Your task to perform on an android device: Open the phone app and click the voicemail tab. Image 0: 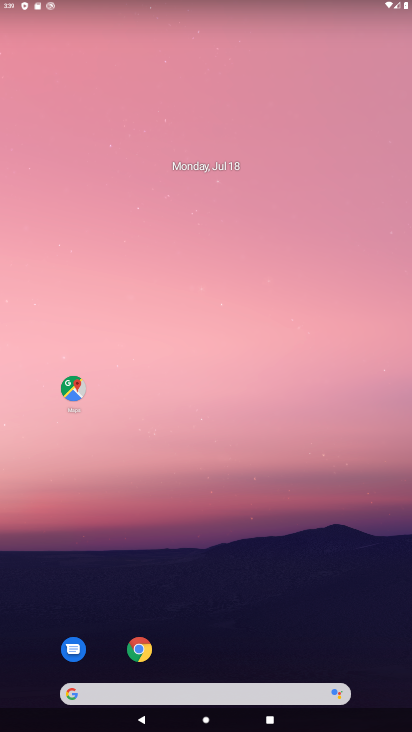
Step 0: drag from (312, 637) to (205, 188)
Your task to perform on an android device: Open the phone app and click the voicemail tab. Image 1: 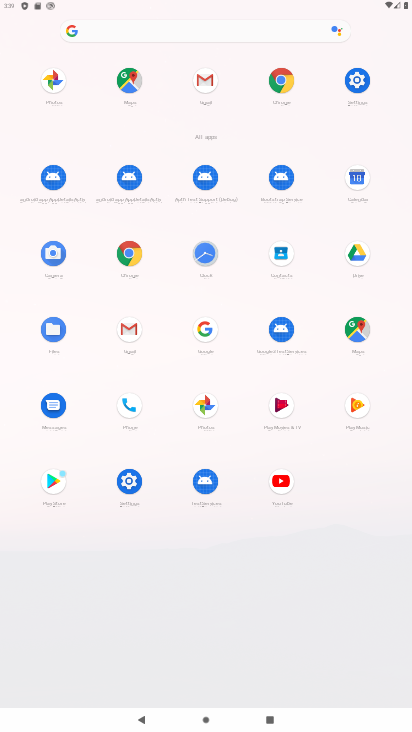
Step 1: click (125, 403)
Your task to perform on an android device: Open the phone app and click the voicemail tab. Image 2: 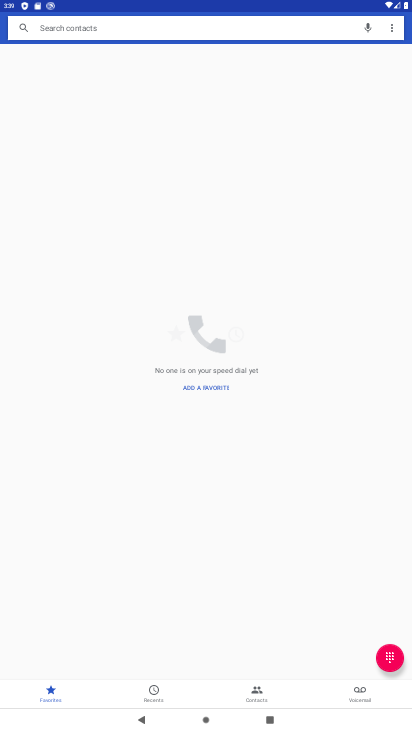
Step 2: click (360, 698)
Your task to perform on an android device: Open the phone app and click the voicemail tab. Image 3: 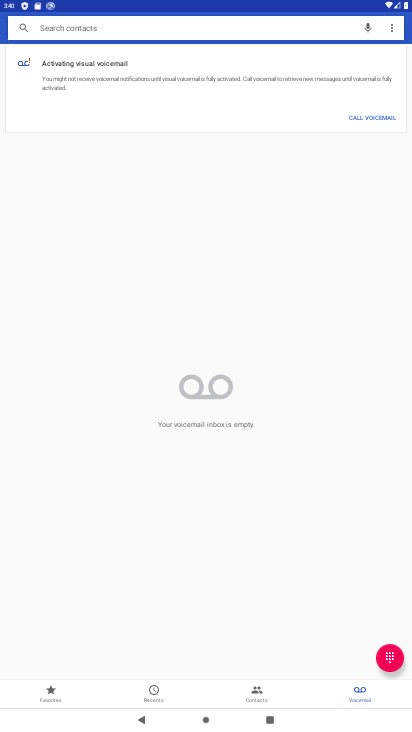
Step 3: task complete